Your task to perform on an android device: move a message to another label in the gmail app Image 0: 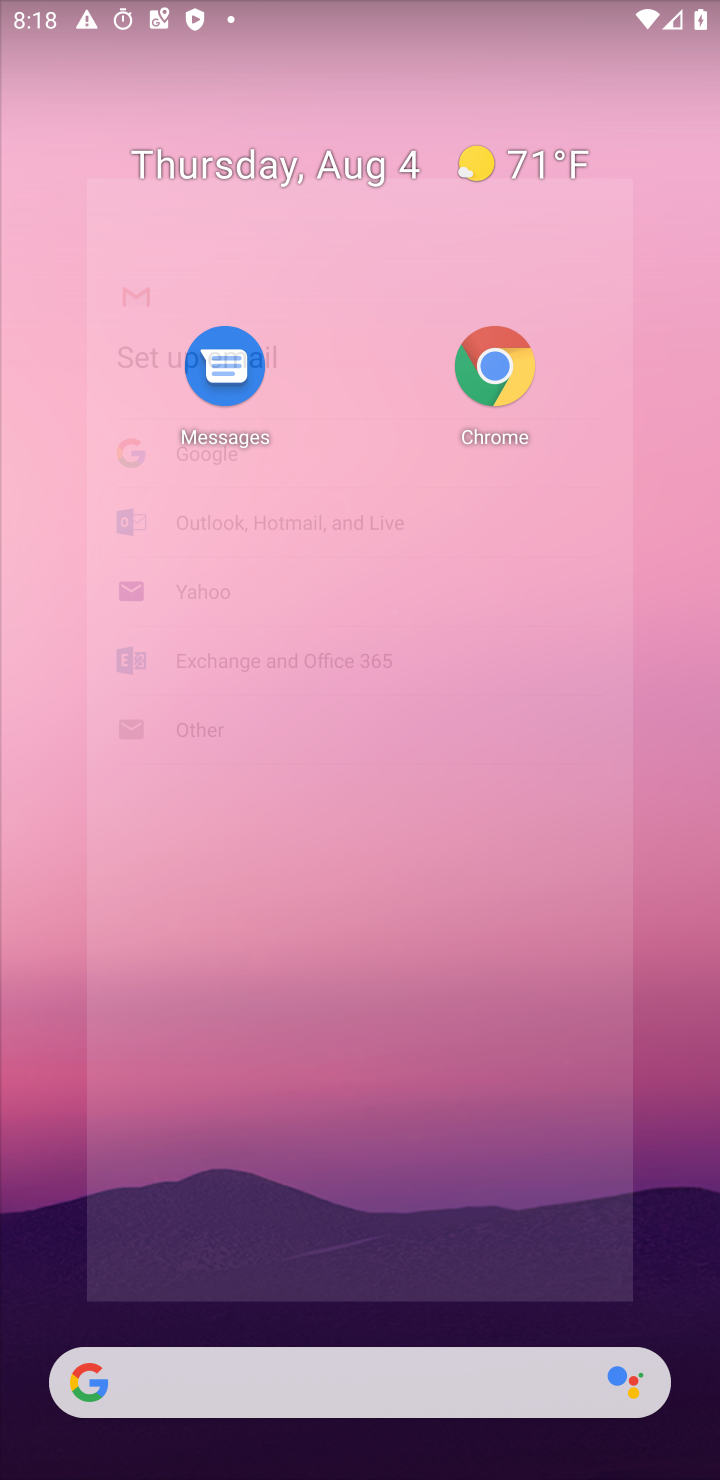
Step 0: press home button
Your task to perform on an android device: move a message to another label in the gmail app Image 1: 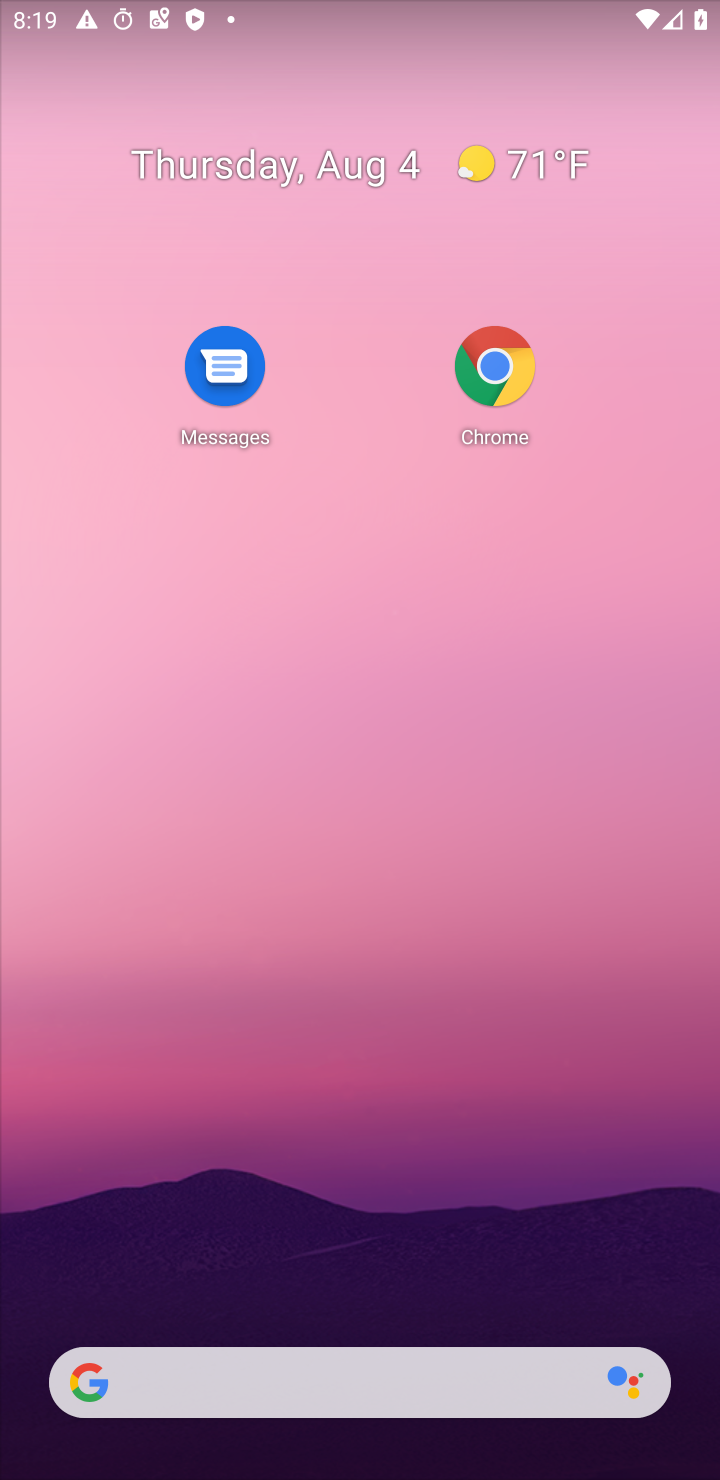
Step 1: drag from (416, 1279) to (412, 232)
Your task to perform on an android device: move a message to another label in the gmail app Image 2: 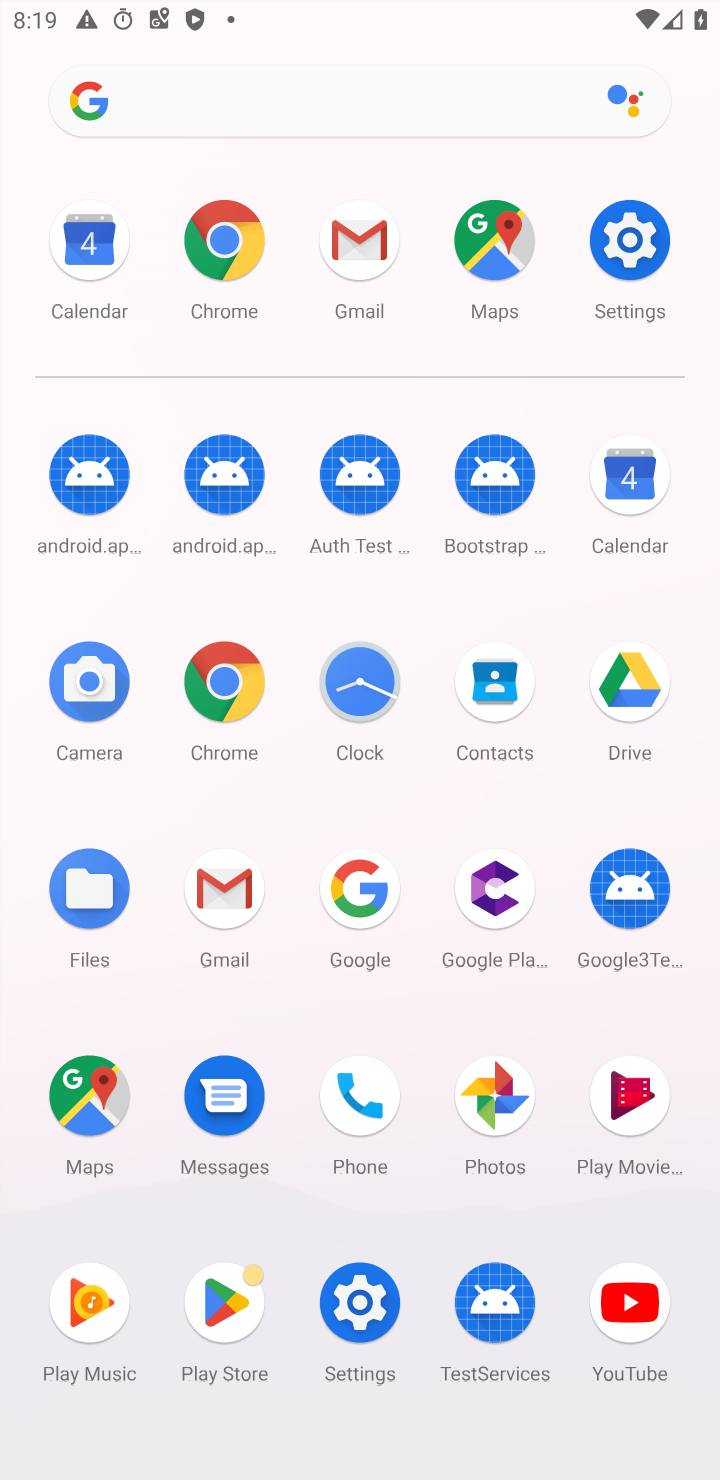
Step 2: click (226, 915)
Your task to perform on an android device: move a message to another label in the gmail app Image 3: 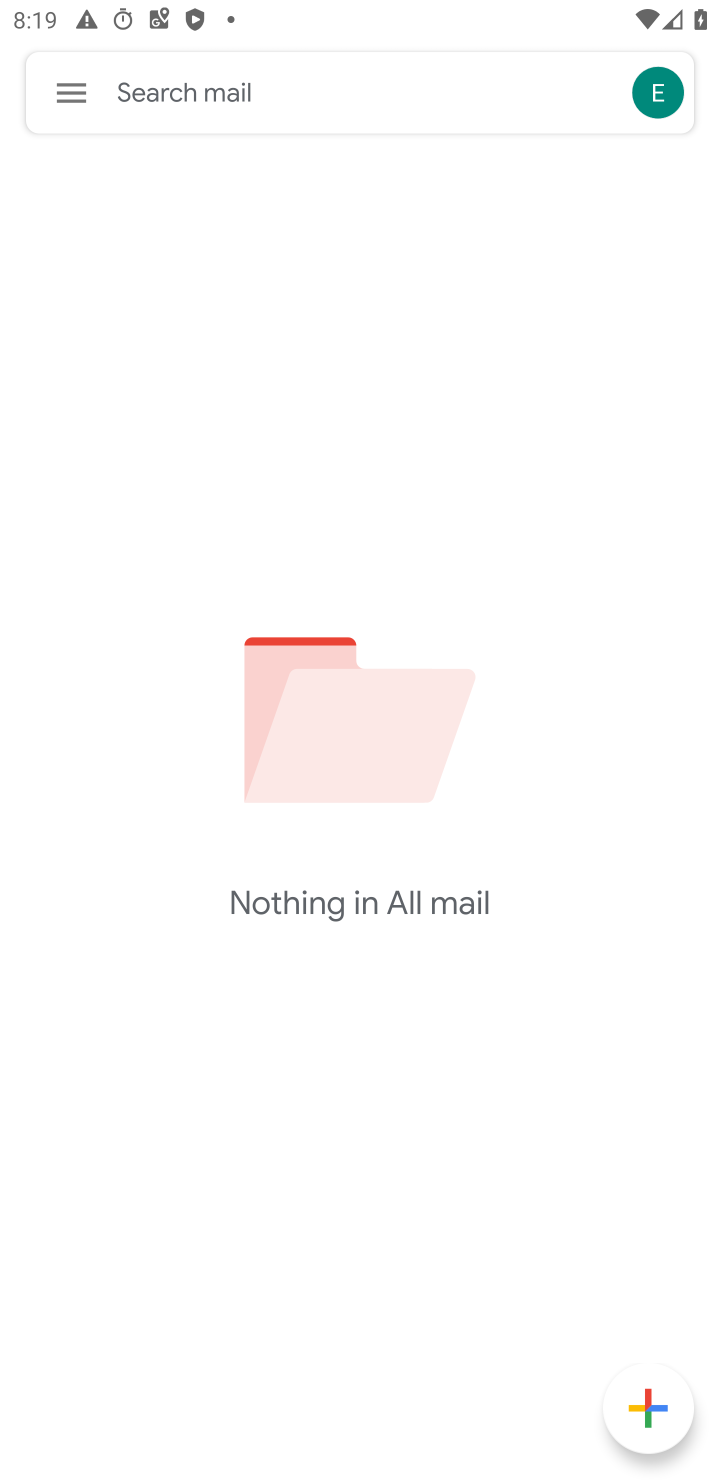
Step 3: click (72, 99)
Your task to perform on an android device: move a message to another label in the gmail app Image 4: 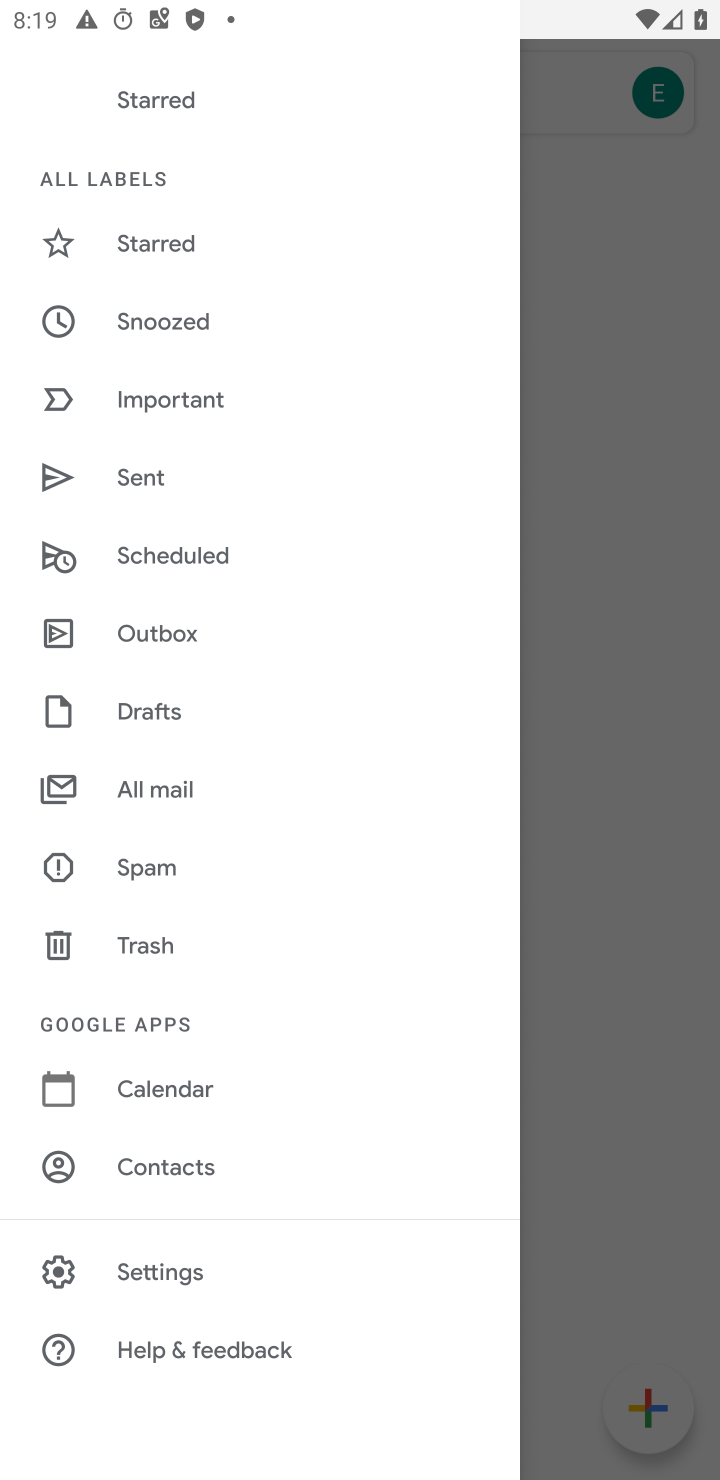
Step 4: click (158, 1275)
Your task to perform on an android device: move a message to another label in the gmail app Image 5: 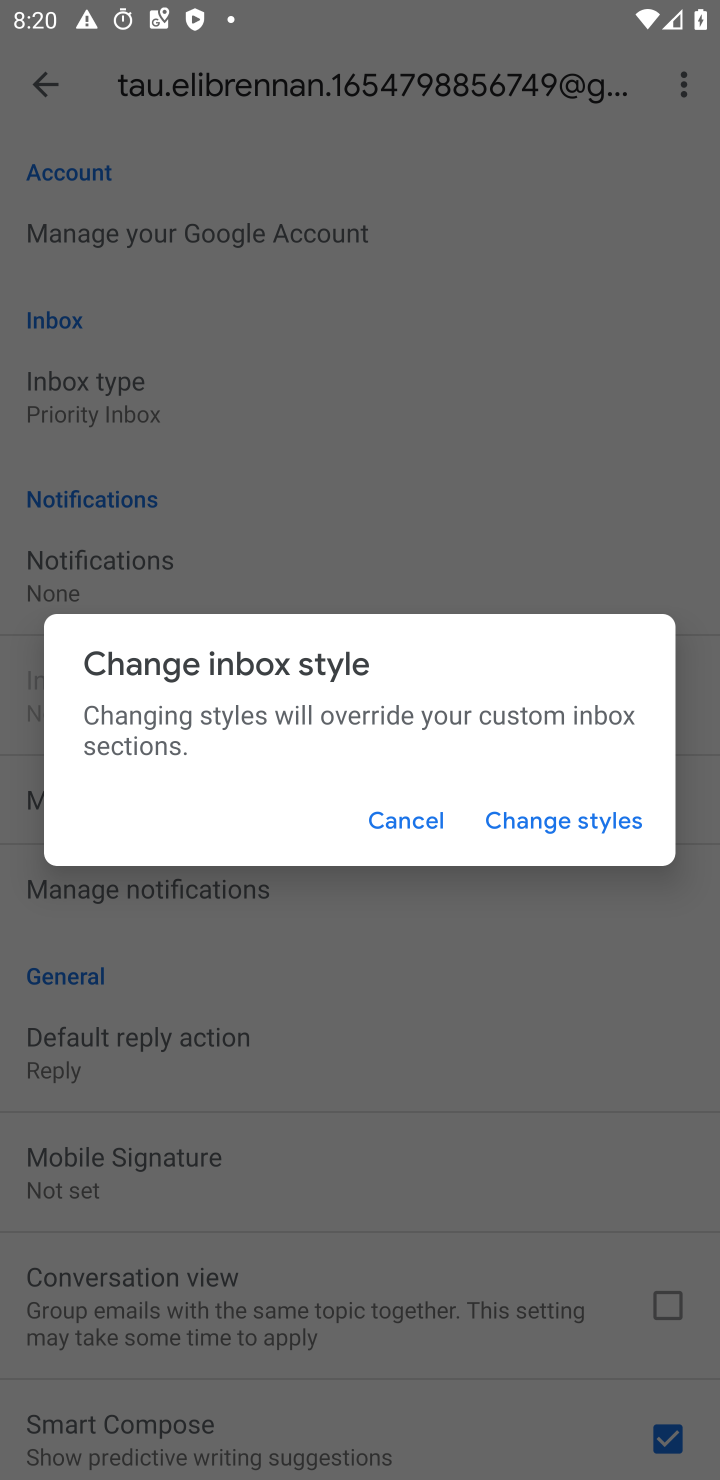
Step 5: task complete